Your task to perform on an android device: set the timer Image 0: 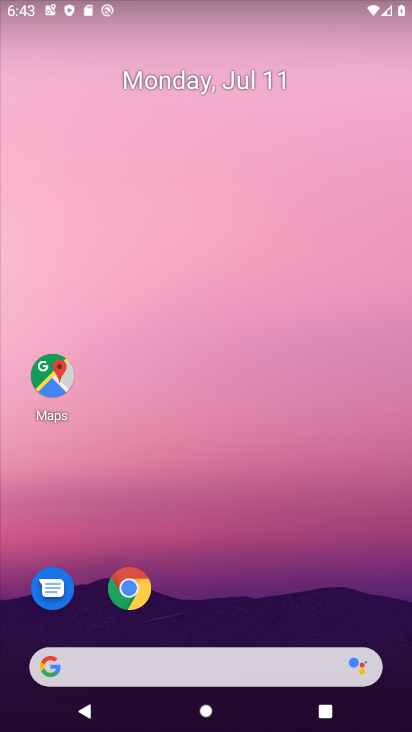
Step 0: drag from (338, 599) to (258, 153)
Your task to perform on an android device: set the timer Image 1: 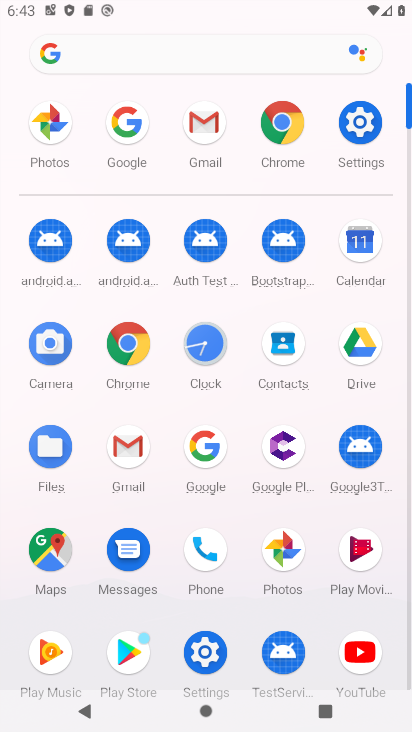
Step 1: click (216, 351)
Your task to perform on an android device: set the timer Image 2: 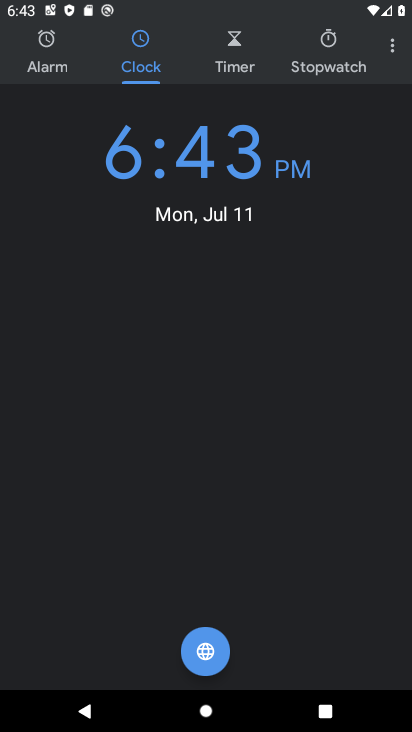
Step 2: click (216, 37)
Your task to perform on an android device: set the timer Image 3: 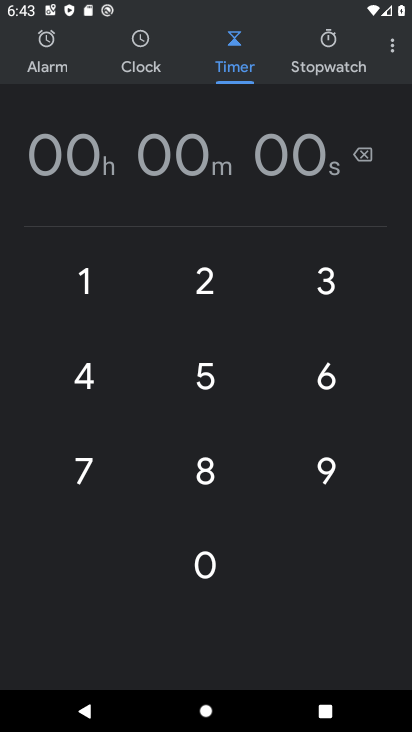
Step 3: click (317, 252)
Your task to perform on an android device: set the timer Image 4: 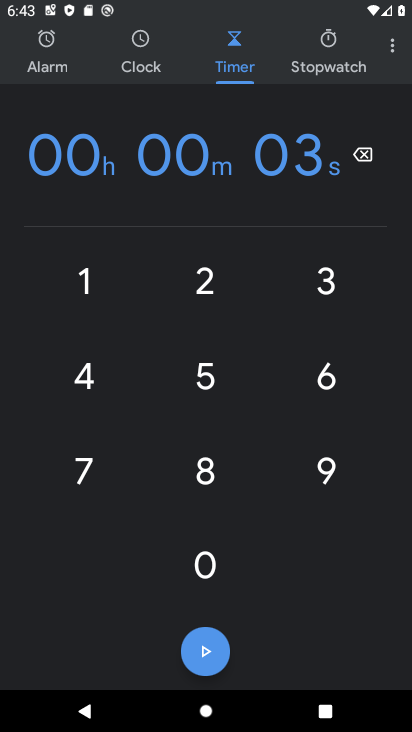
Step 4: click (343, 391)
Your task to perform on an android device: set the timer Image 5: 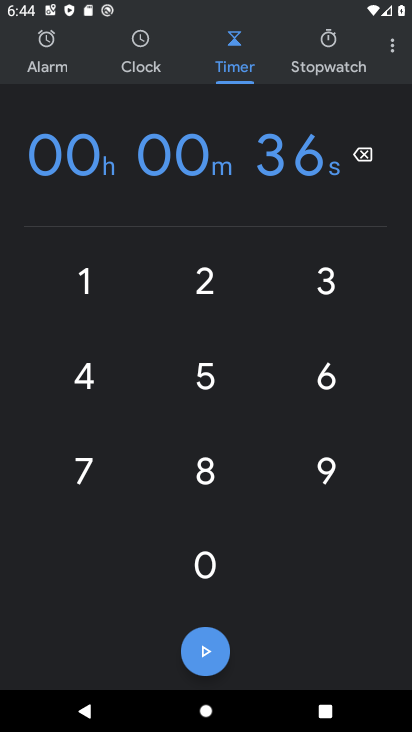
Step 5: click (178, 158)
Your task to perform on an android device: set the timer Image 6: 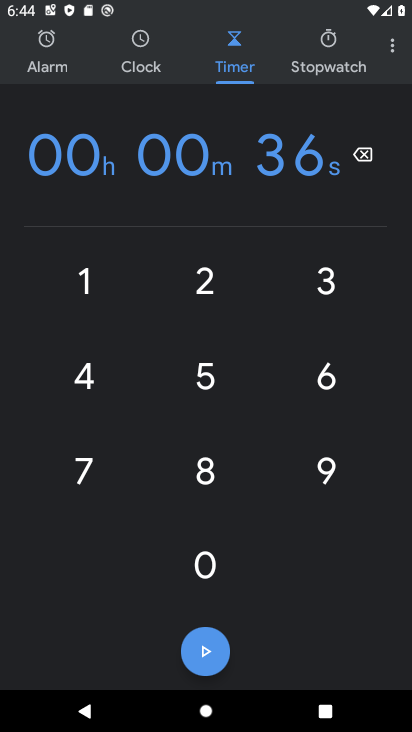
Step 6: click (200, 284)
Your task to perform on an android device: set the timer Image 7: 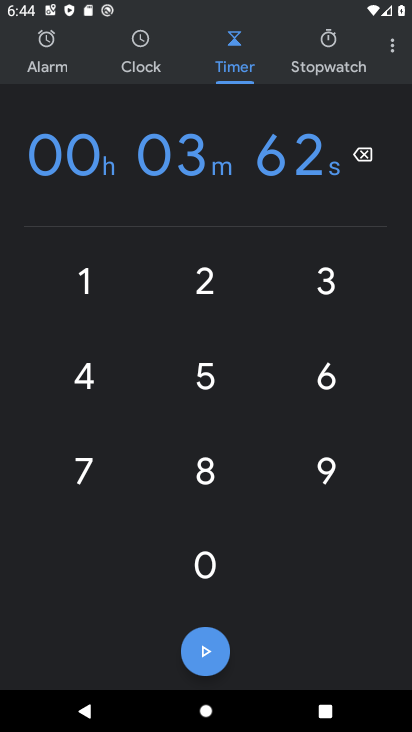
Step 7: click (199, 384)
Your task to perform on an android device: set the timer Image 8: 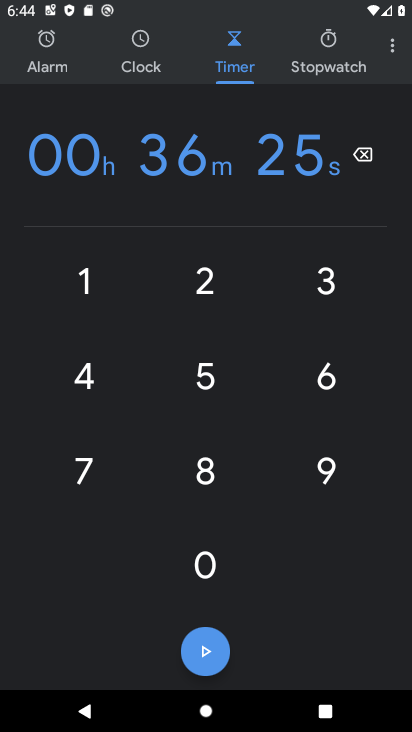
Step 8: click (57, 164)
Your task to perform on an android device: set the timer Image 9: 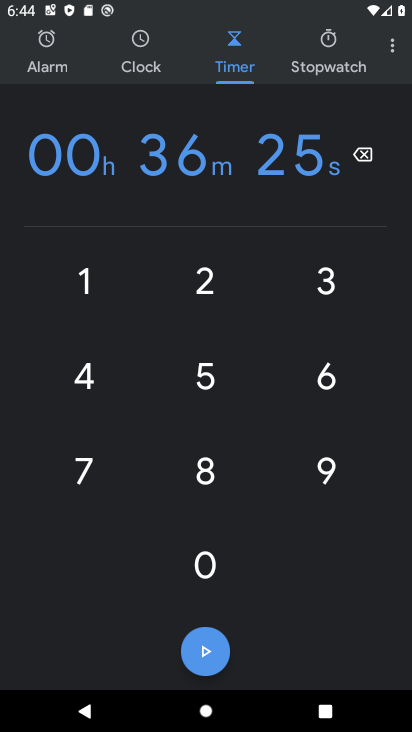
Step 9: click (205, 278)
Your task to perform on an android device: set the timer Image 10: 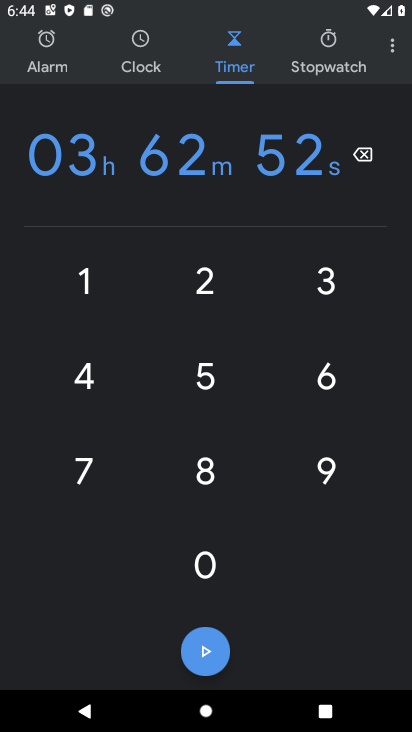
Step 10: task complete